Your task to perform on an android device: Search for Italian restaurants on Maps Image 0: 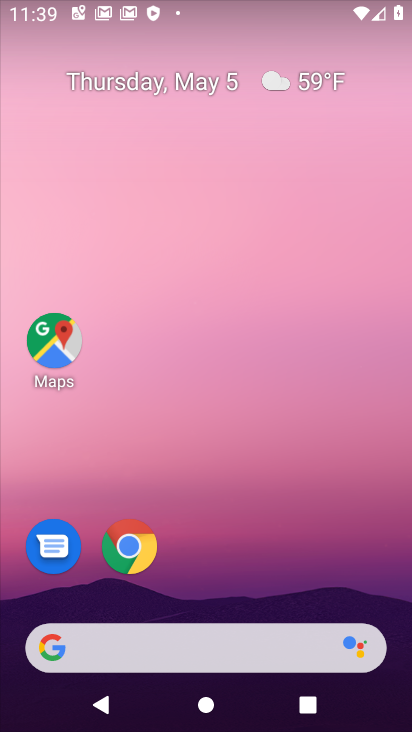
Step 0: click (58, 332)
Your task to perform on an android device: Search for Italian restaurants on Maps Image 1: 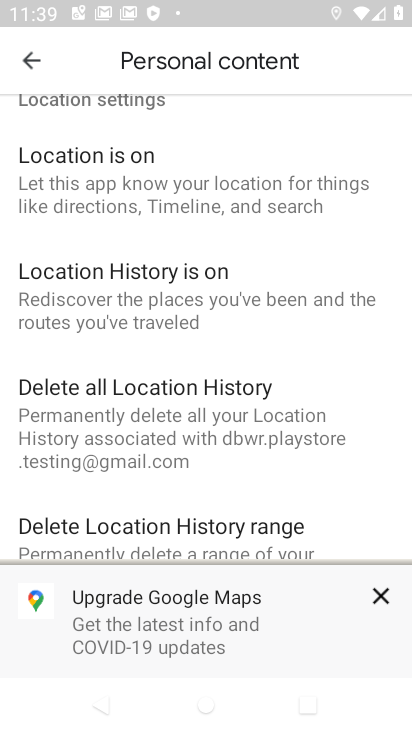
Step 1: click (23, 62)
Your task to perform on an android device: Search for Italian restaurants on Maps Image 2: 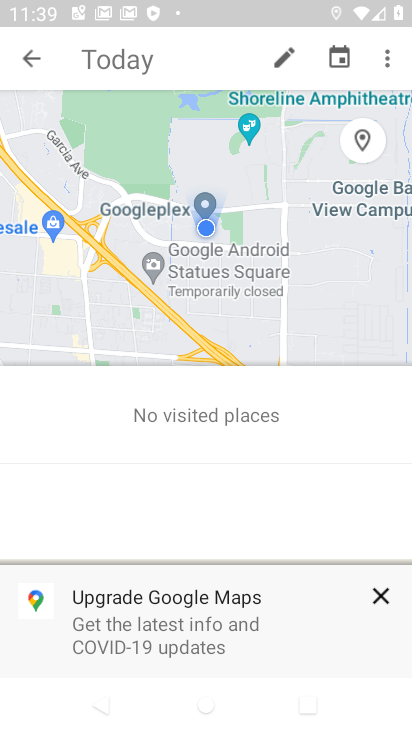
Step 2: click (29, 66)
Your task to perform on an android device: Search for Italian restaurants on Maps Image 3: 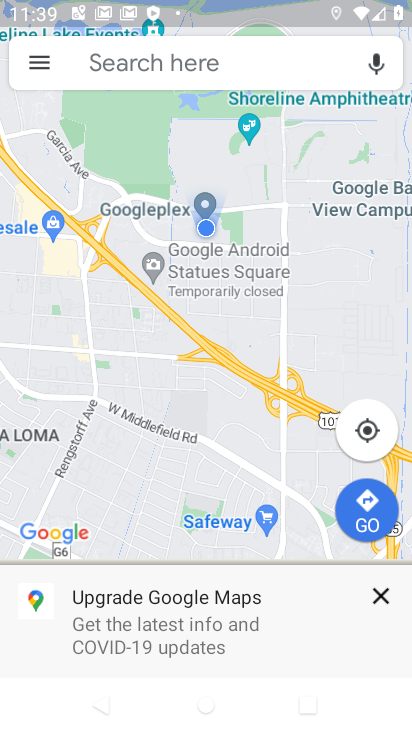
Step 3: click (208, 66)
Your task to perform on an android device: Search for Italian restaurants on Maps Image 4: 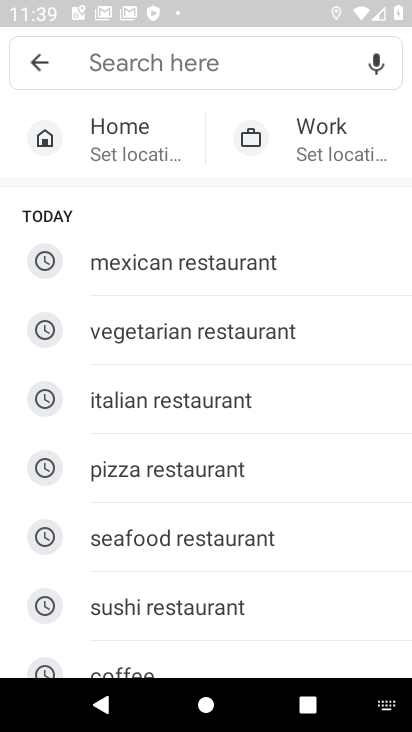
Step 4: click (185, 398)
Your task to perform on an android device: Search for Italian restaurants on Maps Image 5: 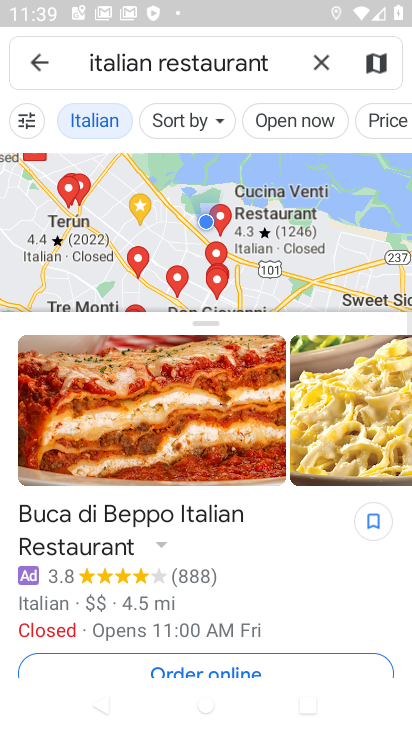
Step 5: task complete